Your task to perform on an android device: Show me recent news Image 0: 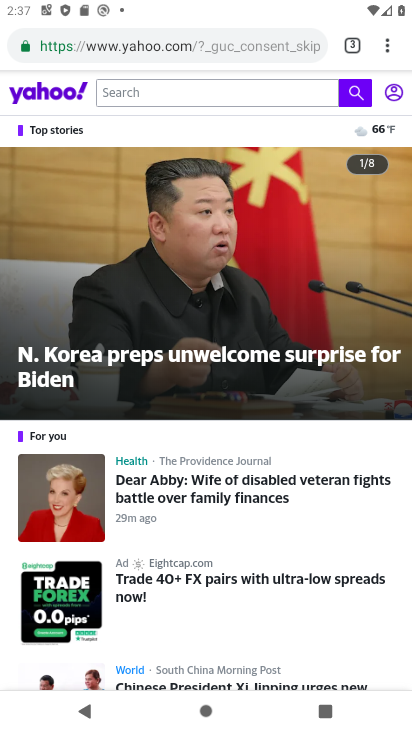
Step 0: click (230, 45)
Your task to perform on an android device: Show me recent news Image 1: 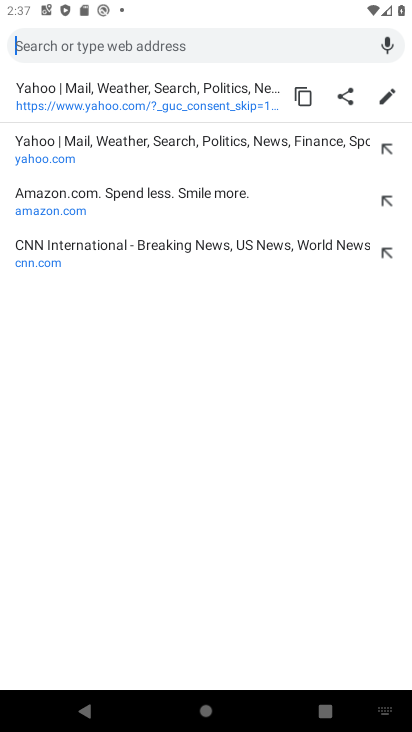
Step 1: type "news"
Your task to perform on an android device: Show me recent news Image 2: 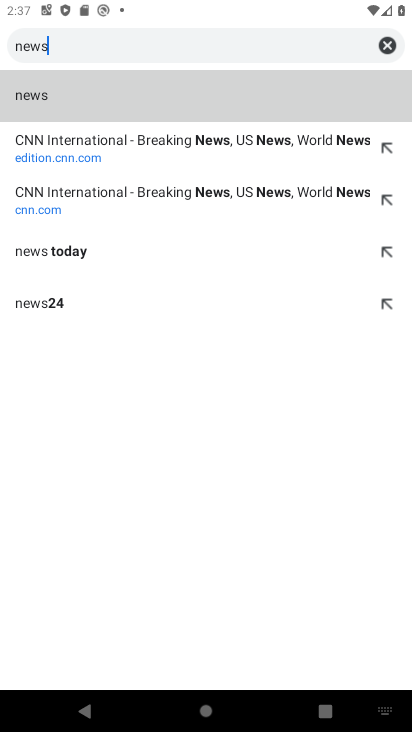
Step 2: click (38, 98)
Your task to perform on an android device: Show me recent news Image 3: 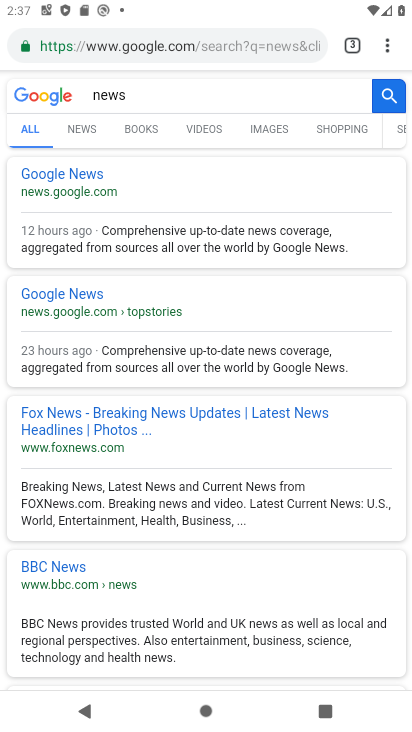
Step 3: click (93, 137)
Your task to perform on an android device: Show me recent news Image 4: 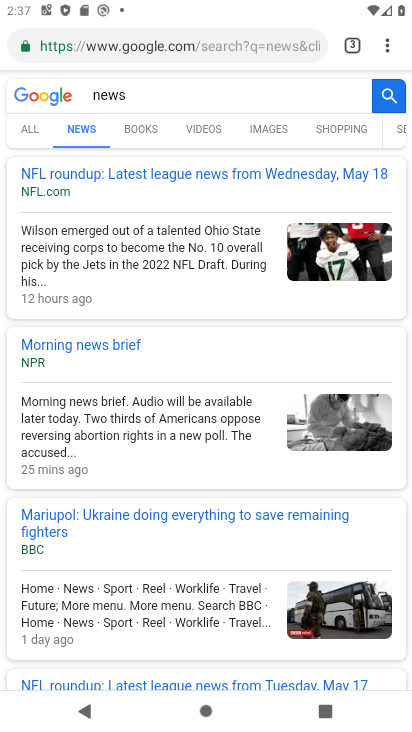
Step 4: task complete